Your task to perform on an android device: Go to internet settings Image 0: 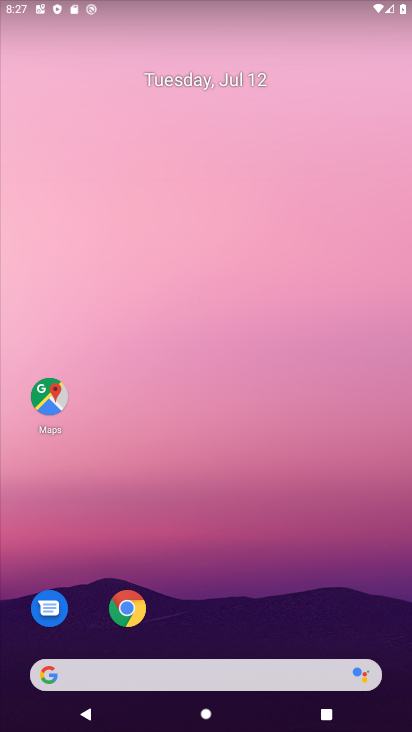
Step 0: drag from (166, 7) to (179, 370)
Your task to perform on an android device: Go to internet settings Image 1: 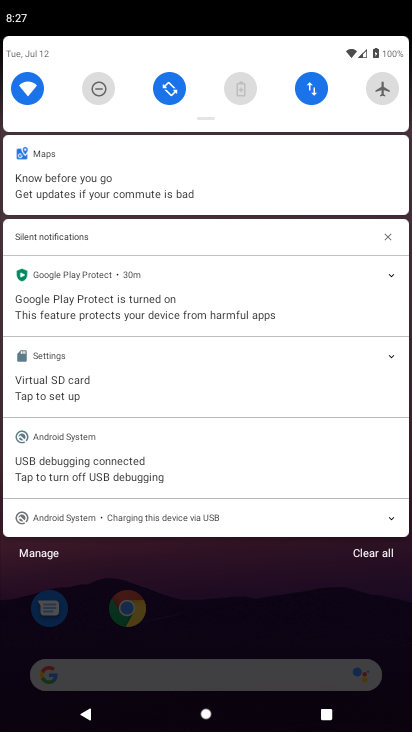
Step 1: click (320, 90)
Your task to perform on an android device: Go to internet settings Image 2: 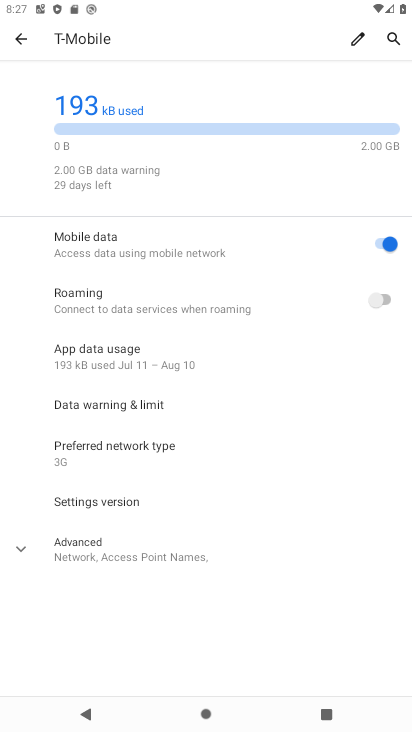
Step 2: task complete